Your task to perform on an android device: empty trash in google photos Image 0: 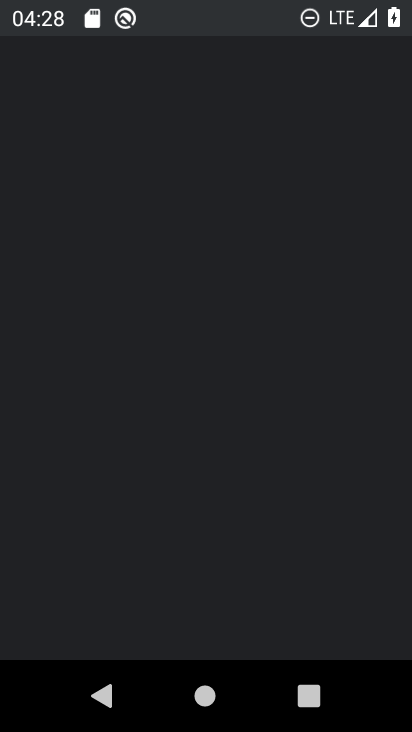
Step 0: drag from (339, 581) to (376, 412)
Your task to perform on an android device: empty trash in google photos Image 1: 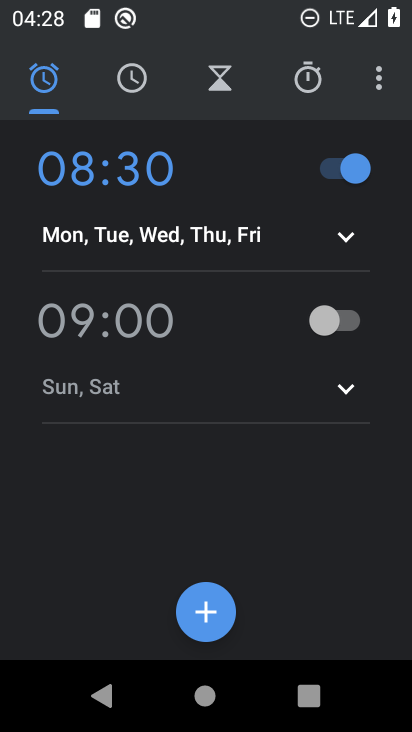
Step 1: press home button
Your task to perform on an android device: empty trash in google photos Image 2: 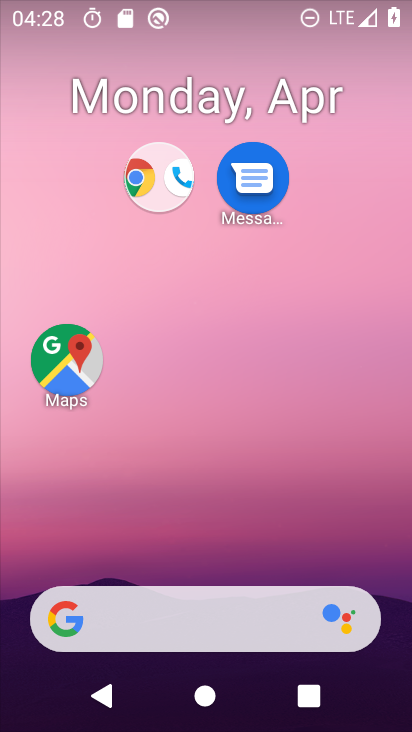
Step 2: drag from (322, 579) to (355, 4)
Your task to perform on an android device: empty trash in google photos Image 3: 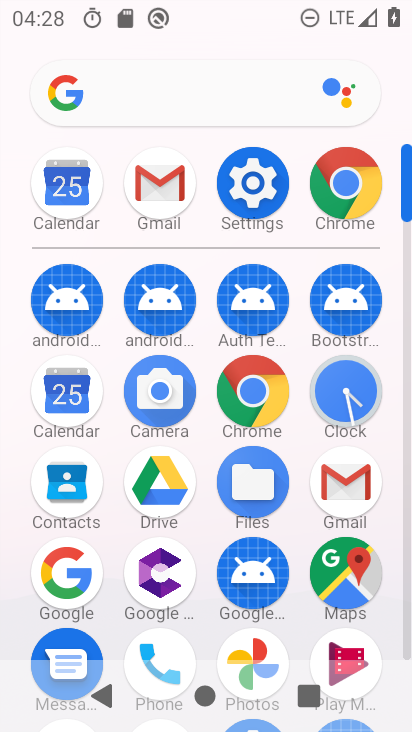
Step 3: drag from (307, 623) to (321, 204)
Your task to perform on an android device: empty trash in google photos Image 4: 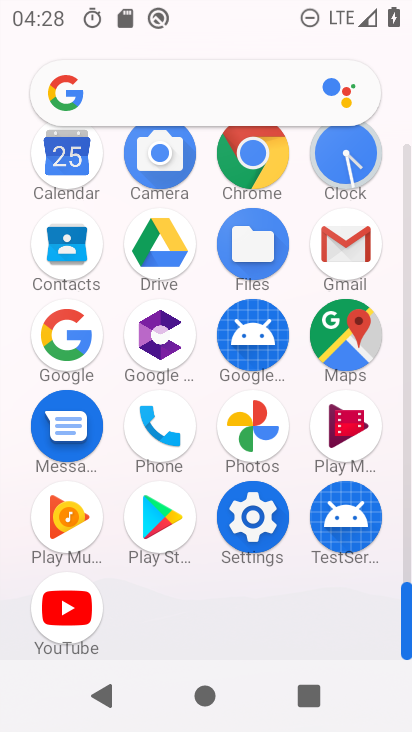
Step 4: click (250, 426)
Your task to perform on an android device: empty trash in google photos Image 5: 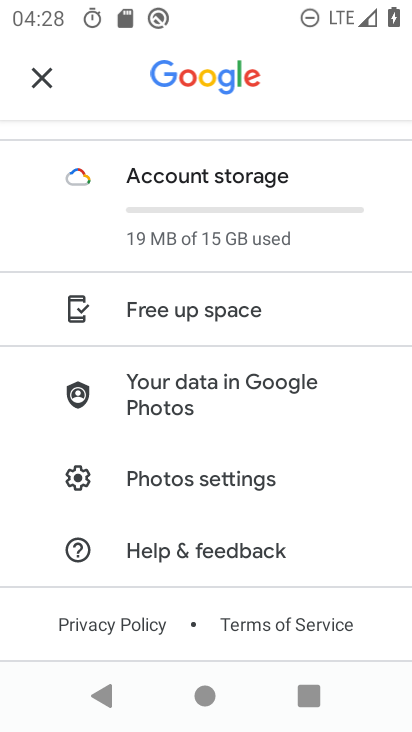
Step 5: press back button
Your task to perform on an android device: empty trash in google photos Image 6: 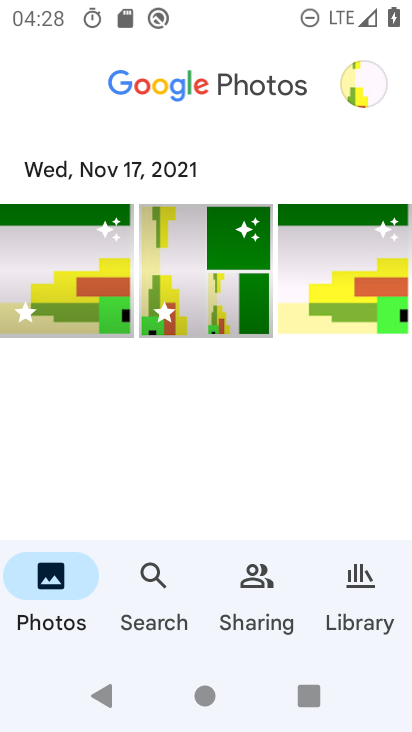
Step 6: click (369, 581)
Your task to perform on an android device: empty trash in google photos Image 7: 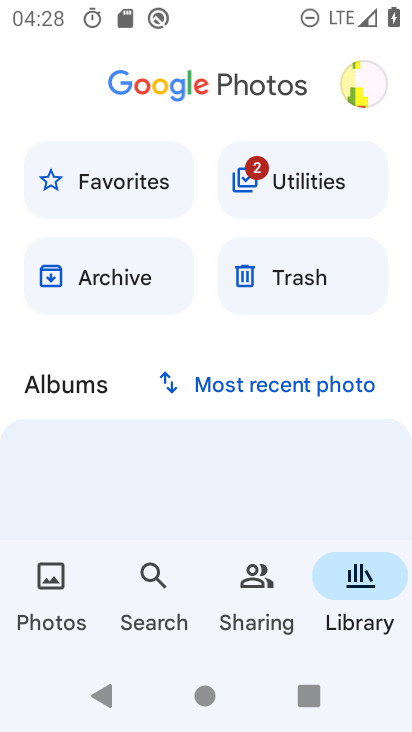
Step 7: click (323, 263)
Your task to perform on an android device: empty trash in google photos Image 8: 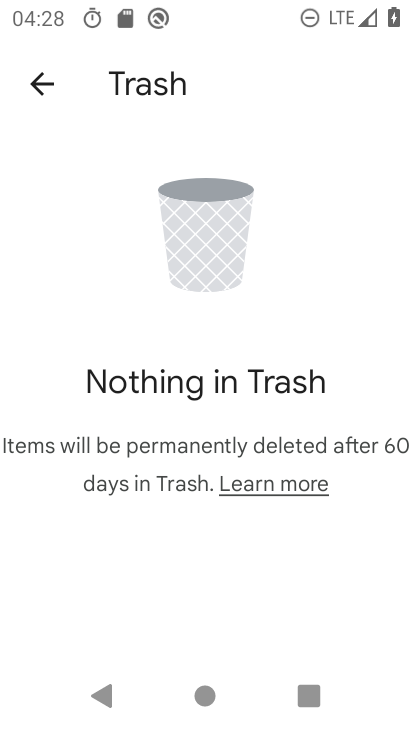
Step 8: task complete